Your task to perform on an android device: turn on wifi Image 0: 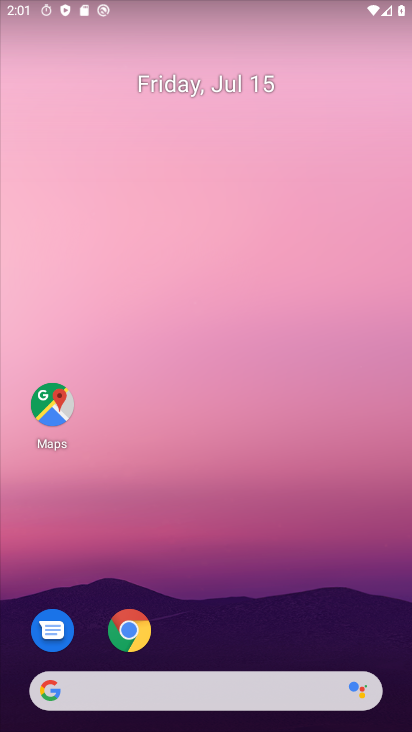
Step 0: drag from (197, 625) to (204, 253)
Your task to perform on an android device: turn on wifi Image 1: 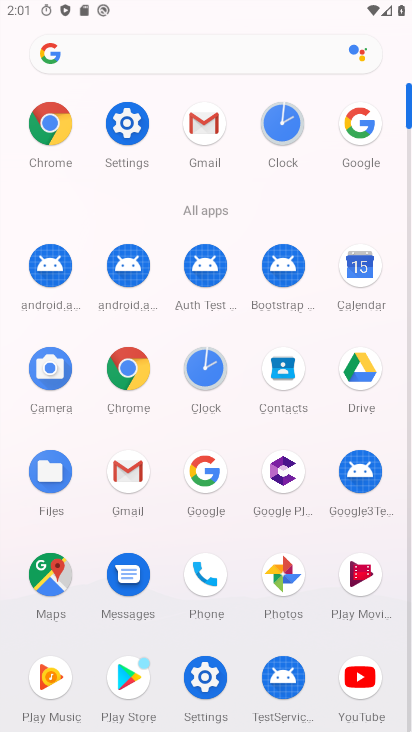
Step 1: click (146, 107)
Your task to perform on an android device: turn on wifi Image 2: 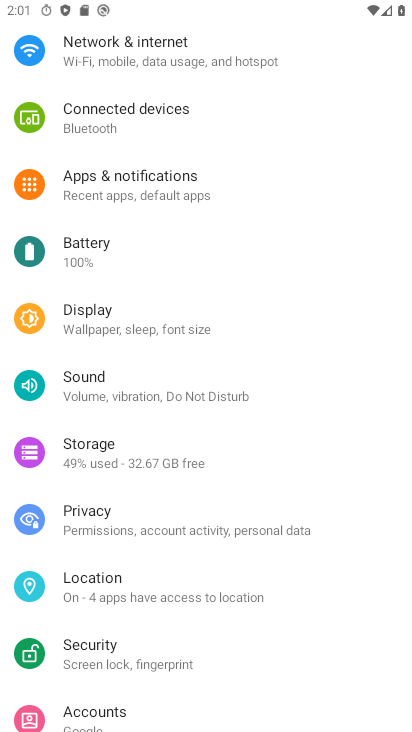
Step 2: click (119, 48)
Your task to perform on an android device: turn on wifi Image 3: 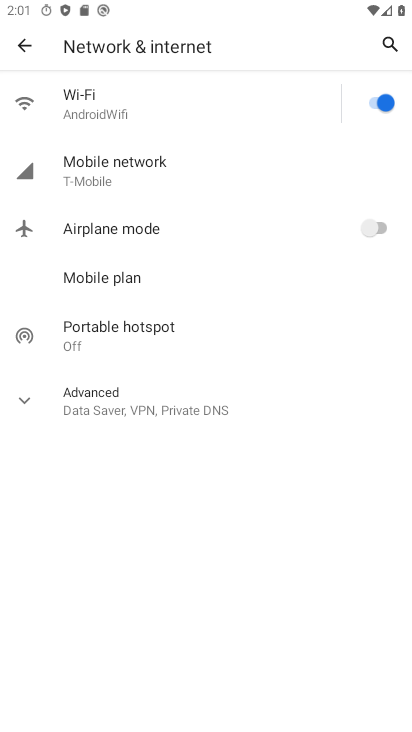
Step 3: task complete